Your task to perform on an android device: open wifi settings Image 0: 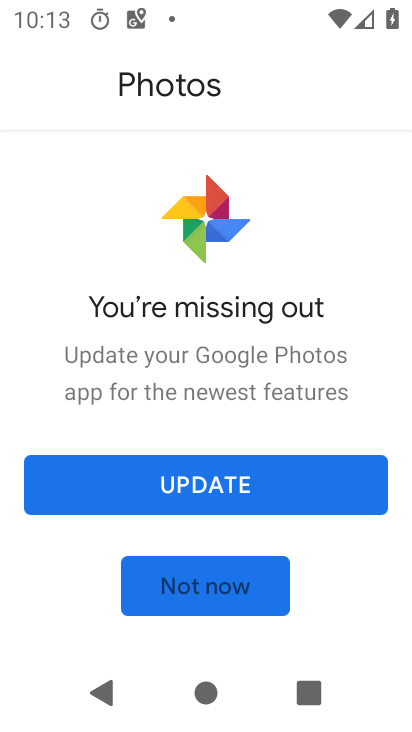
Step 0: press home button
Your task to perform on an android device: open wifi settings Image 1: 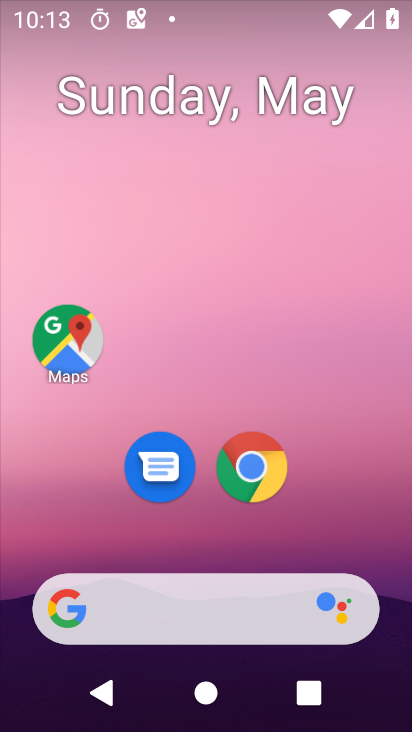
Step 1: drag from (212, 534) to (203, 148)
Your task to perform on an android device: open wifi settings Image 2: 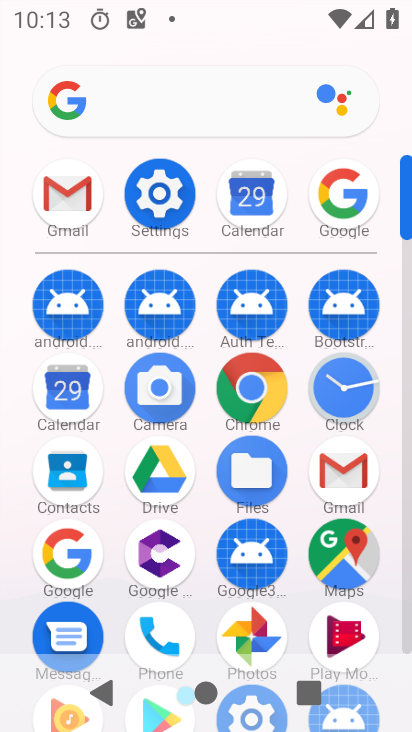
Step 2: click (172, 172)
Your task to perform on an android device: open wifi settings Image 3: 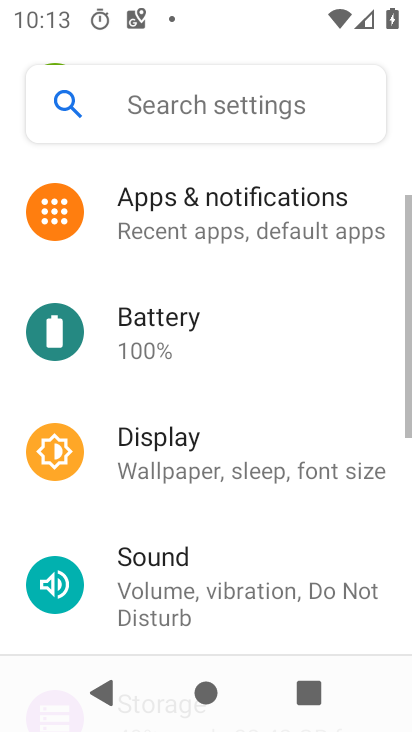
Step 3: drag from (172, 172) to (222, 590)
Your task to perform on an android device: open wifi settings Image 4: 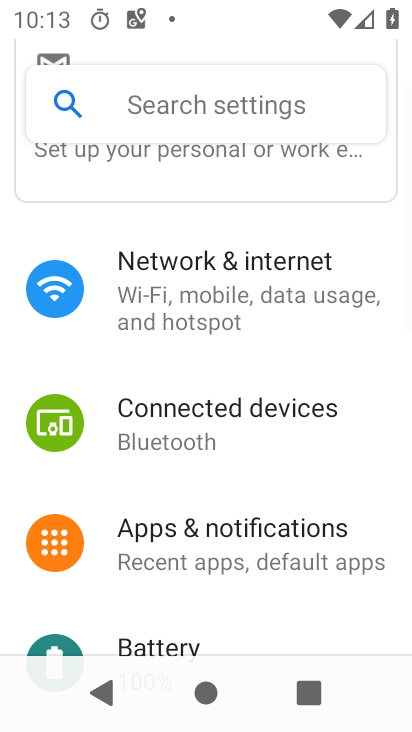
Step 4: click (173, 319)
Your task to perform on an android device: open wifi settings Image 5: 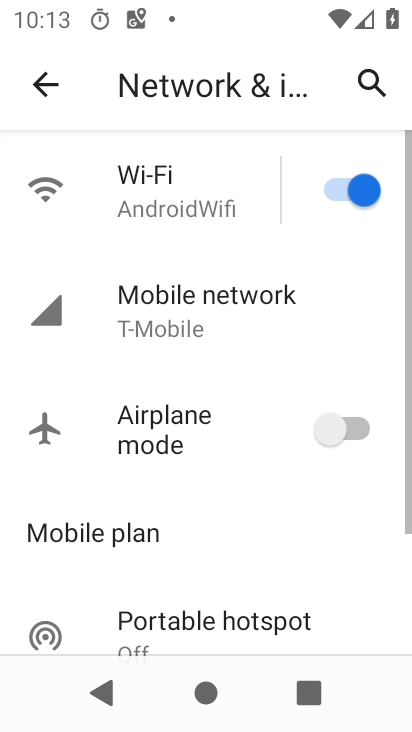
Step 5: task complete